Your task to perform on an android device: install app "Google Drive" Image 0: 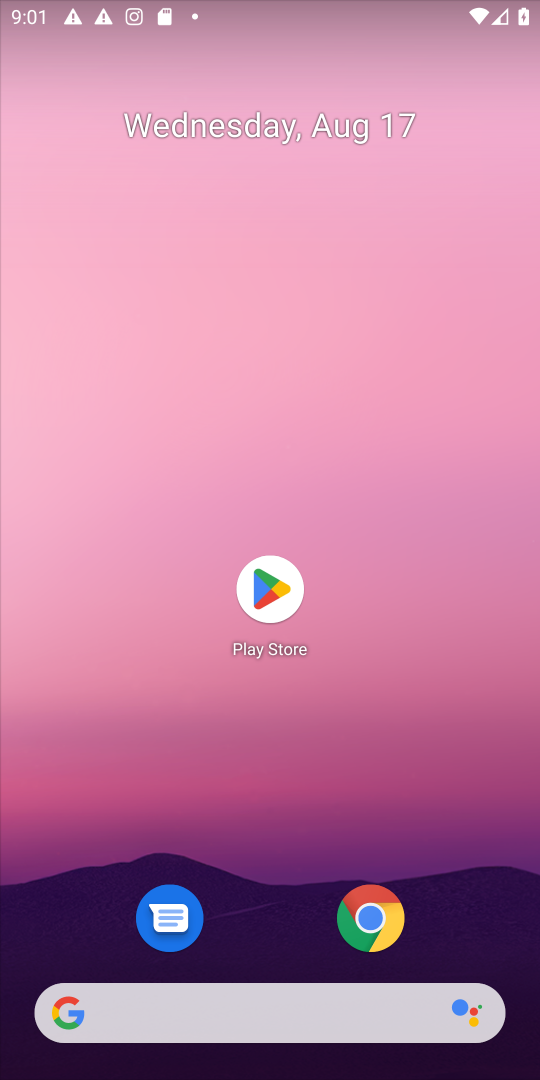
Step 0: click (272, 585)
Your task to perform on an android device: install app "Google Drive" Image 1: 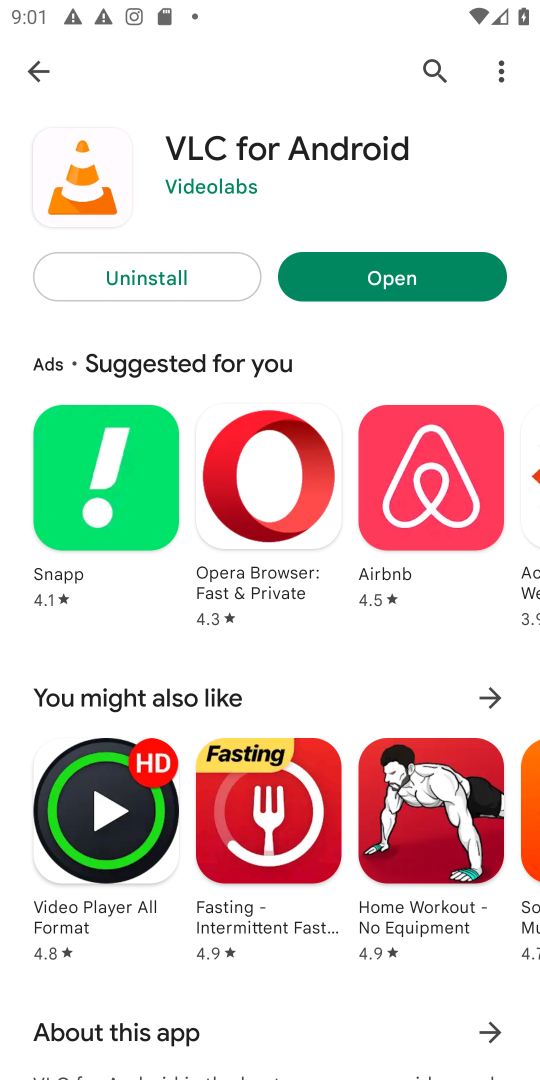
Step 1: click (272, 587)
Your task to perform on an android device: install app "Google Drive" Image 2: 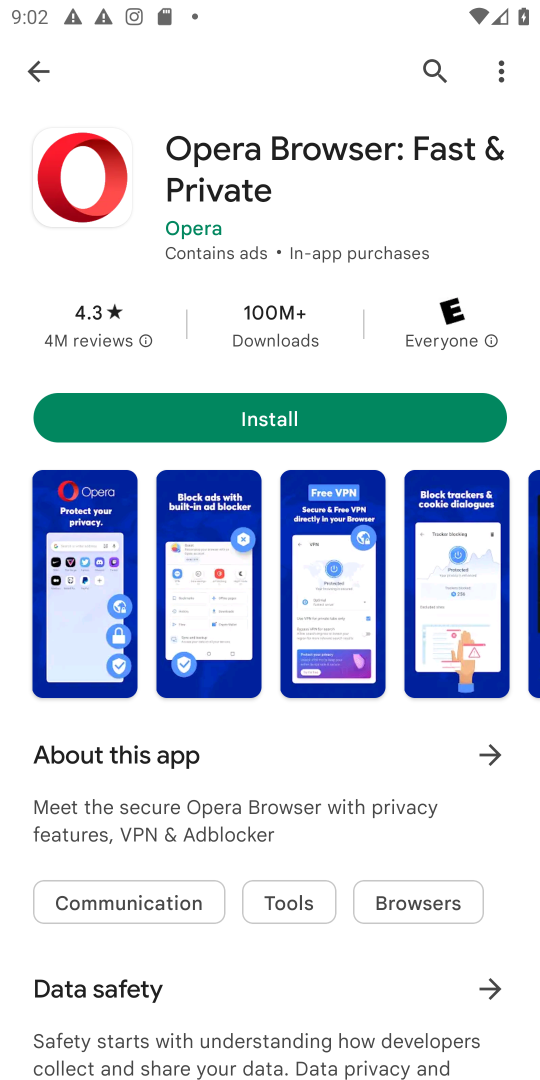
Step 2: click (435, 61)
Your task to perform on an android device: install app "Google Drive" Image 3: 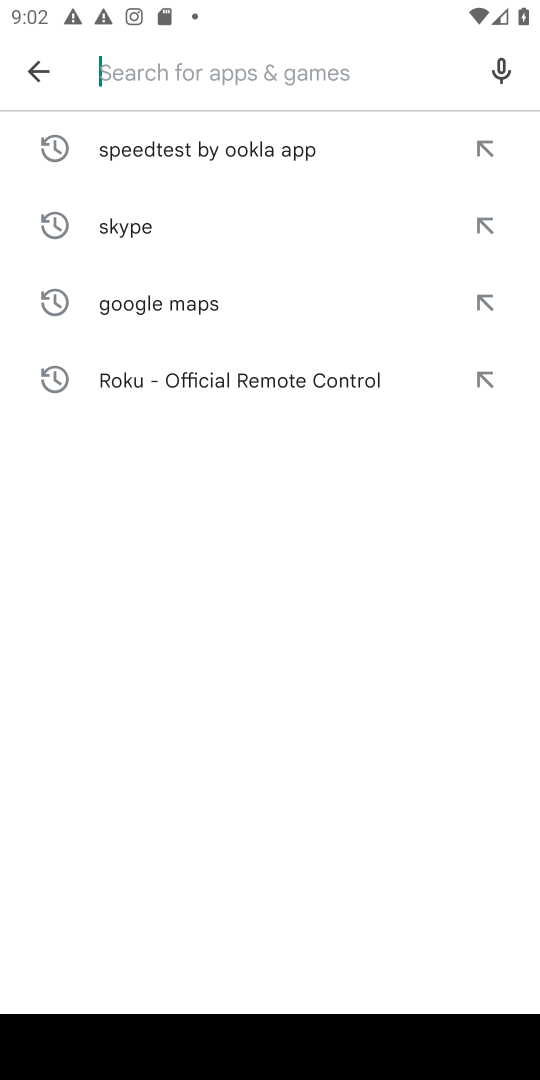
Step 3: type "Google Drive"
Your task to perform on an android device: install app "Google Drive" Image 4: 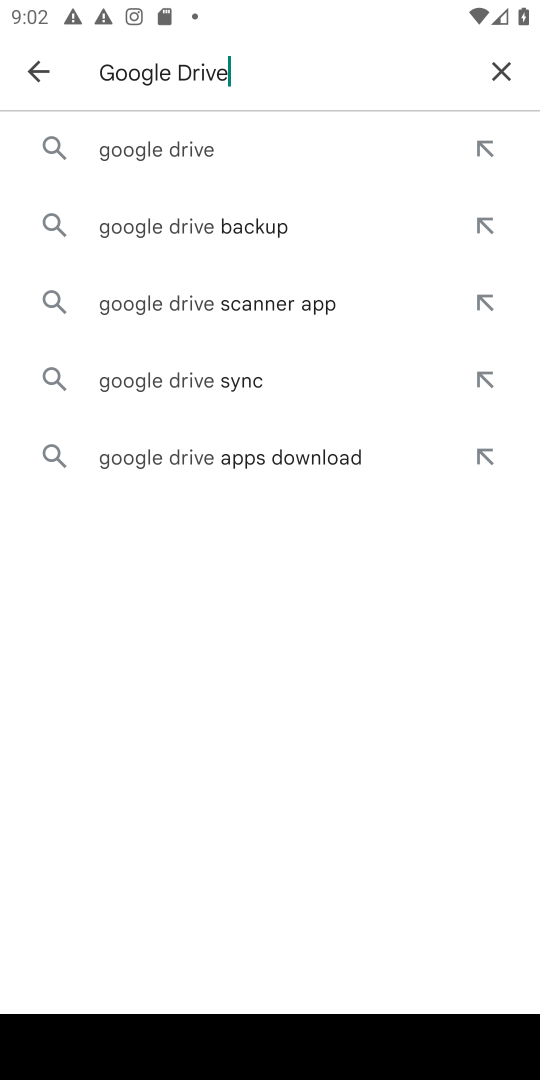
Step 4: click (203, 140)
Your task to perform on an android device: install app "Google Drive" Image 5: 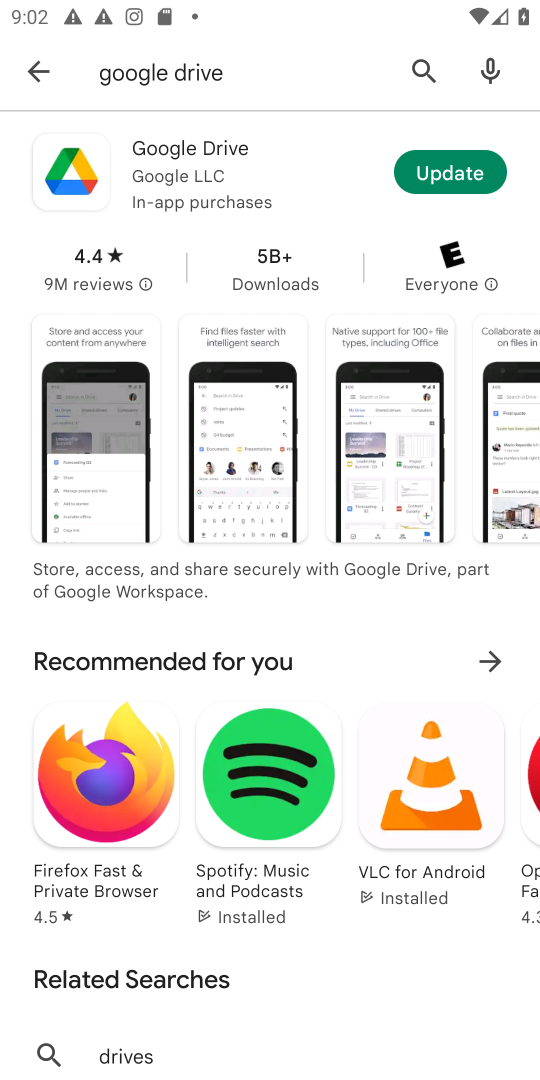
Step 5: click (147, 167)
Your task to perform on an android device: install app "Google Drive" Image 6: 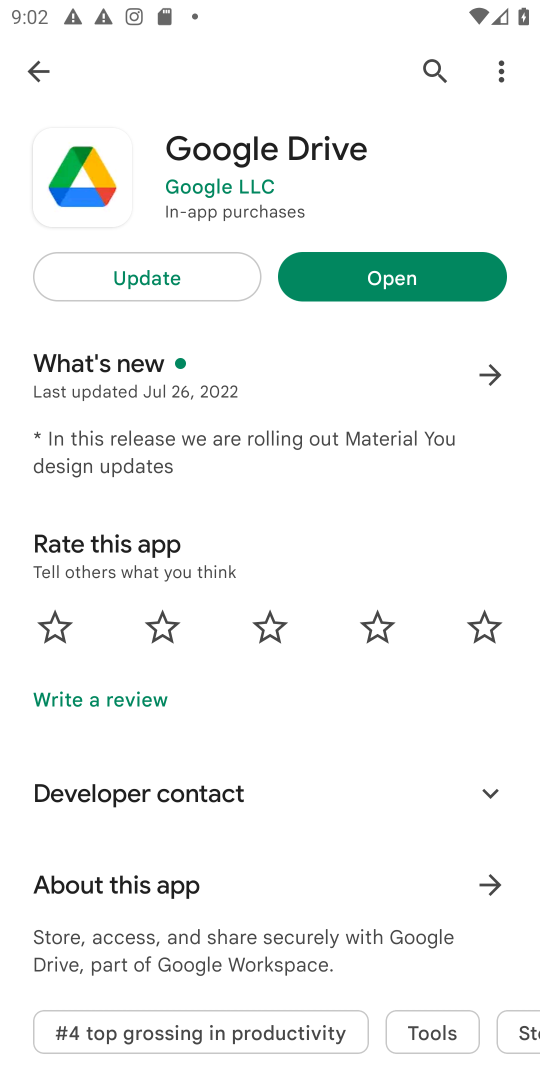
Step 6: task complete